Your task to perform on an android device: Go to Reddit.com Image 0: 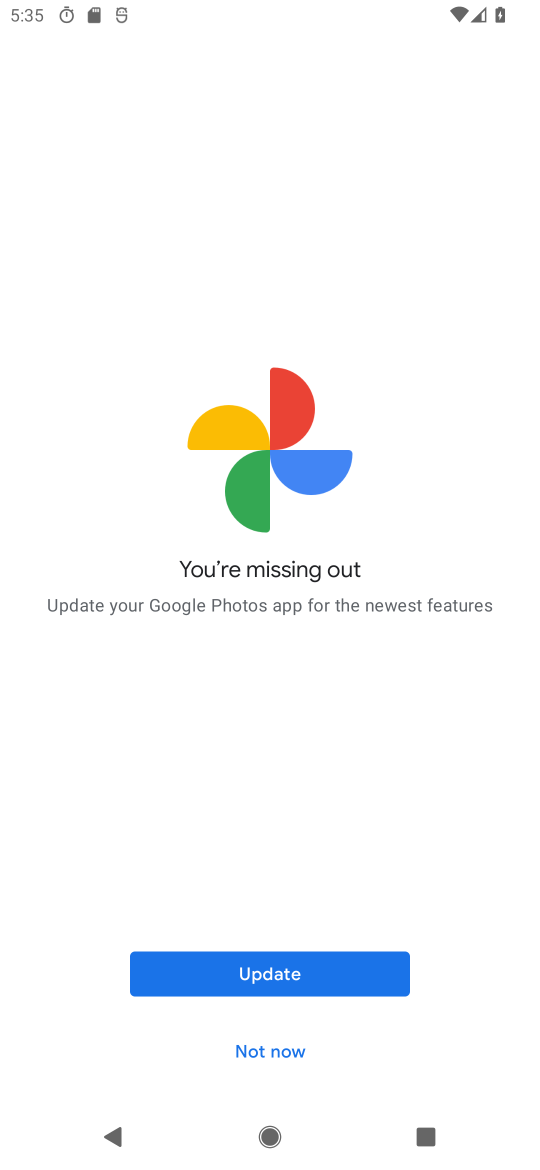
Step 0: press home button
Your task to perform on an android device: Go to Reddit.com Image 1: 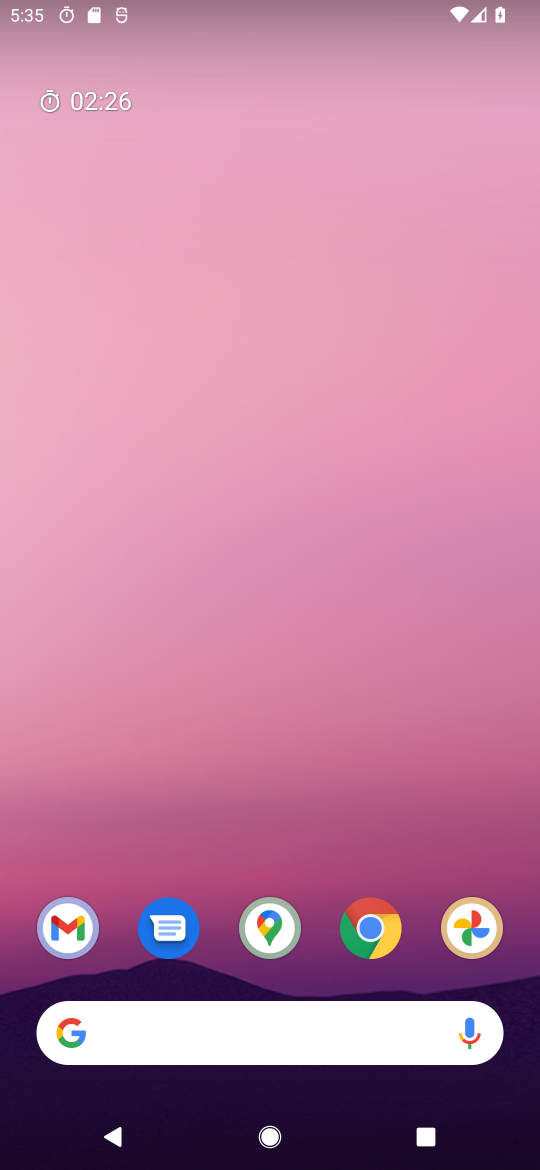
Step 1: drag from (237, 903) to (431, 3)
Your task to perform on an android device: Go to Reddit.com Image 2: 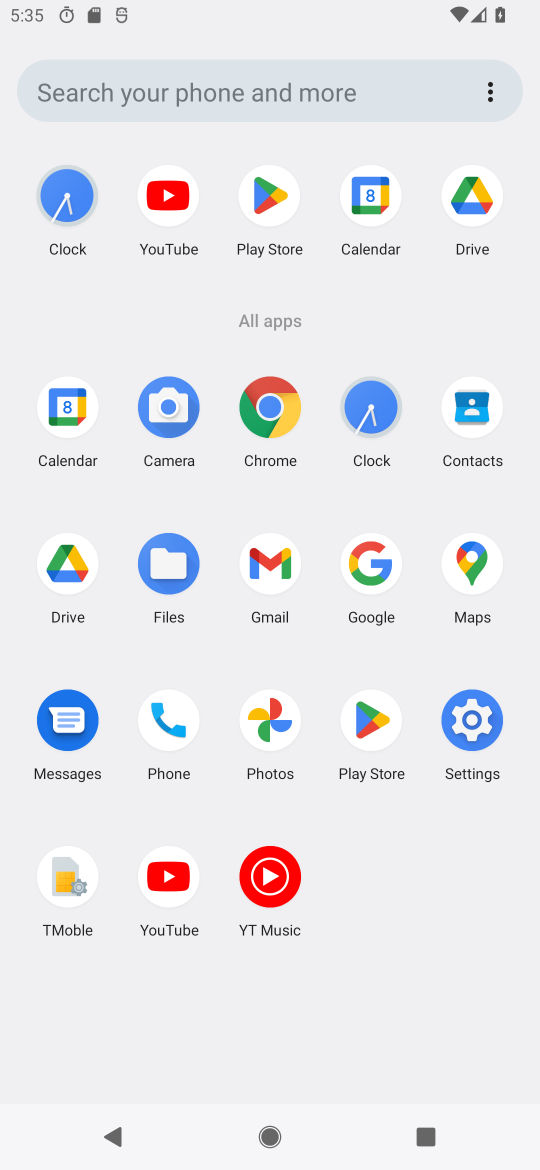
Step 2: click (264, 411)
Your task to perform on an android device: Go to Reddit.com Image 3: 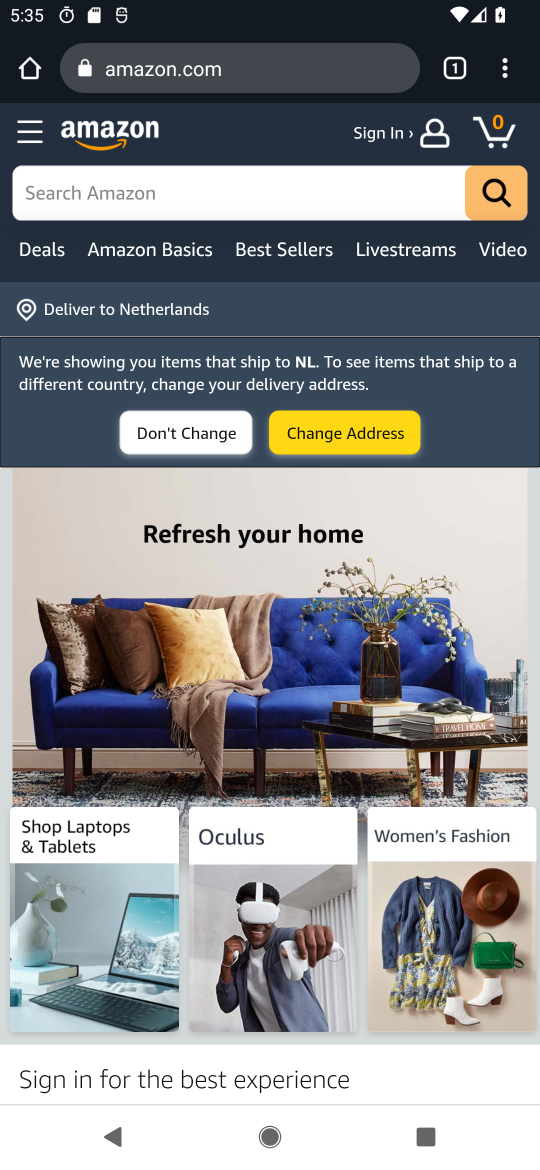
Step 3: click (226, 68)
Your task to perform on an android device: Go to Reddit.com Image 4: 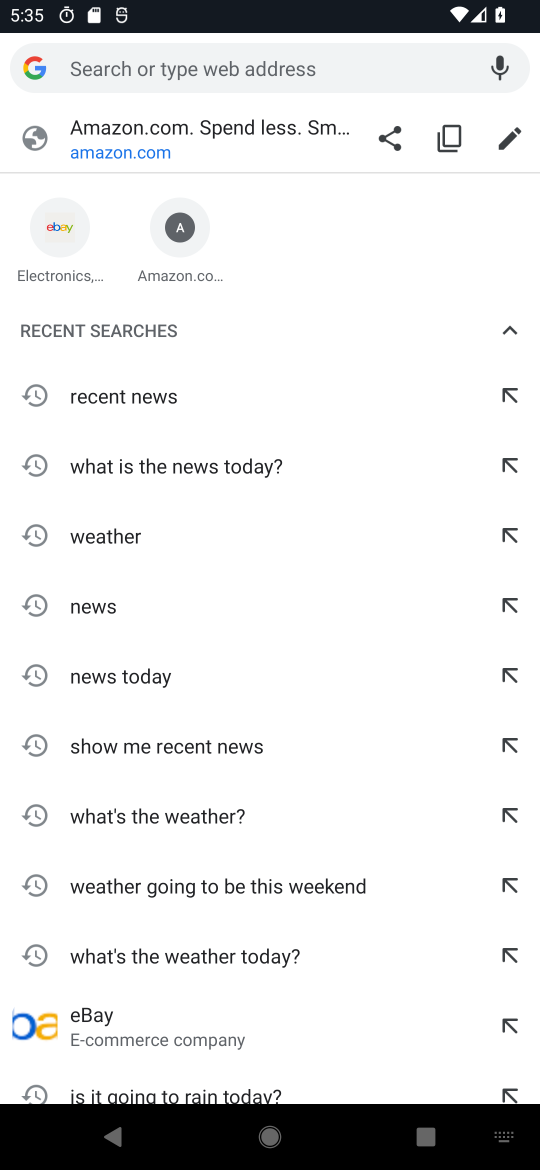
Step 4: type "Reddit.com"
Your task to perform on an android device: Go to Reddit.com Image 5: 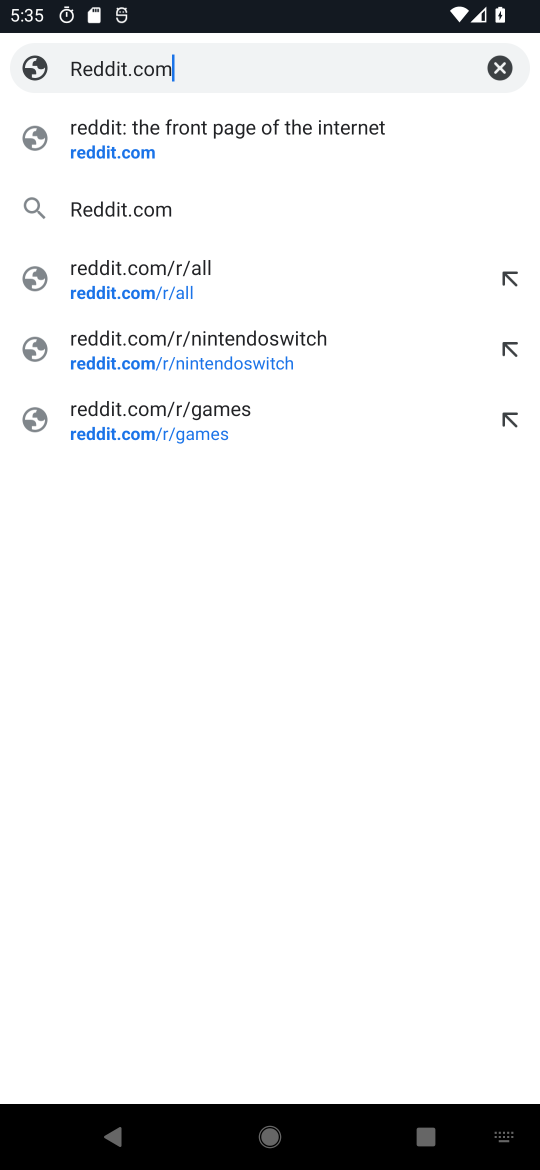
Step 5: click (203, 139)
Your task to perform on an android device: Go to Reddit.com Image 6: 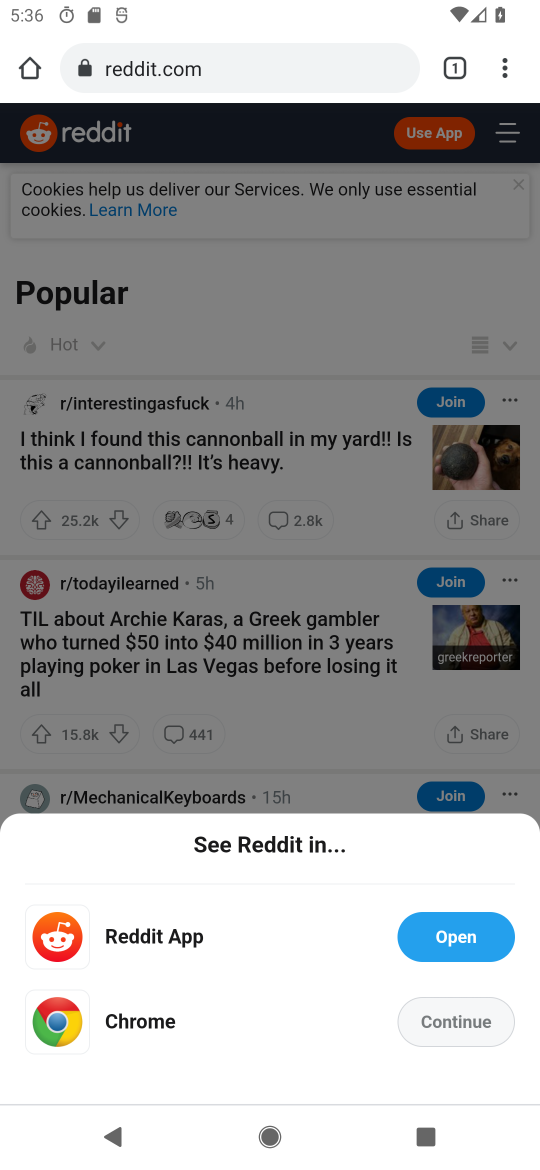
Step 6: task complete